Your task to perform on an android device: toggle improve location accuracy Image 0: 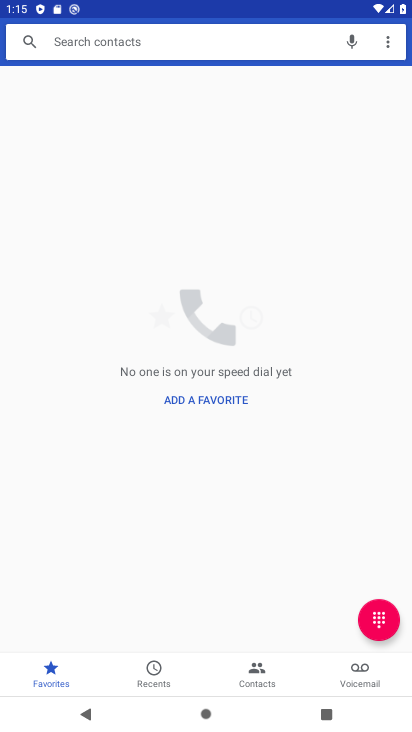
Step 0: drag from (322, 609) to (312, 205)
Your task to perform on an android device: toggle improve location accuracy Image 1: 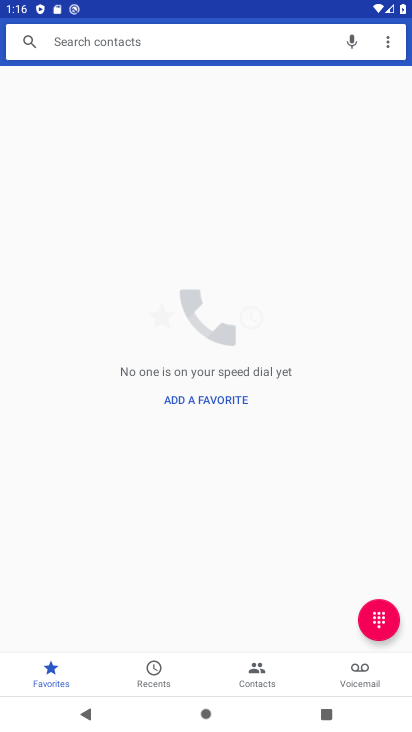
Step 1: press home button
Your task to perform on an android device: toggle improve location accuracy Image 2: 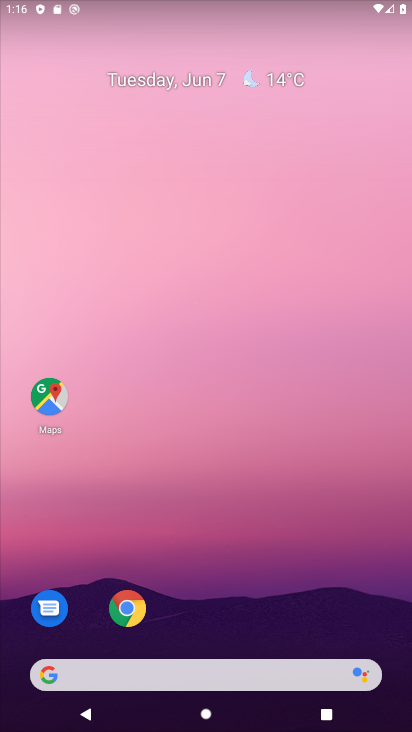
Step 2: drag from (350, 595) to (299, 232)
Your task to perform on an android device: toggle improve location accuracy Image 3: 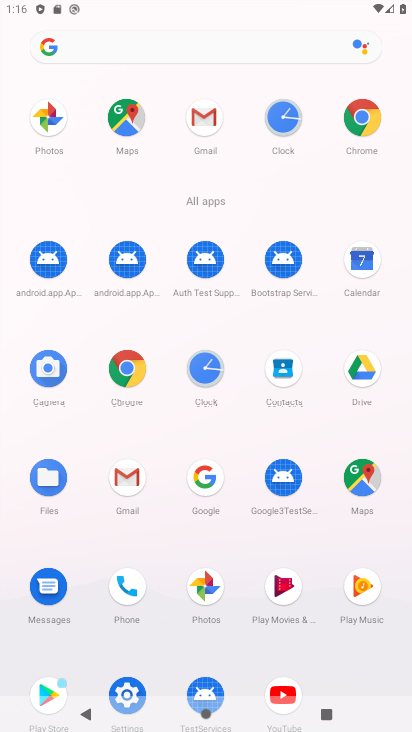
Step 3: click (129, 682)
Your task to perform on an android device: toggle improve location accuracy Image 4: 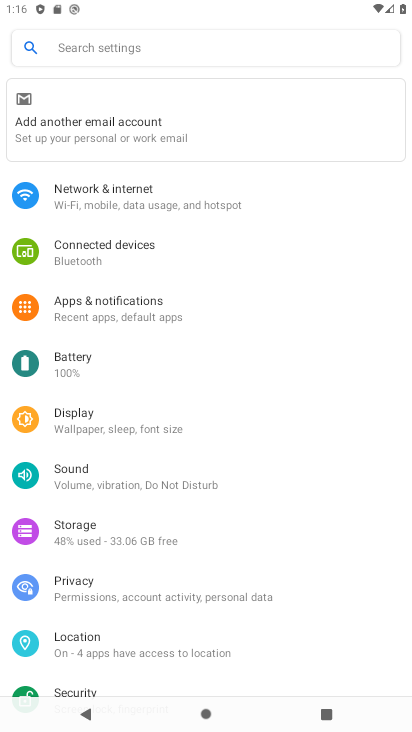
Step 4: click (137, 632)
Your task to perform on an android device: toggle improve location accuracy Image 5: 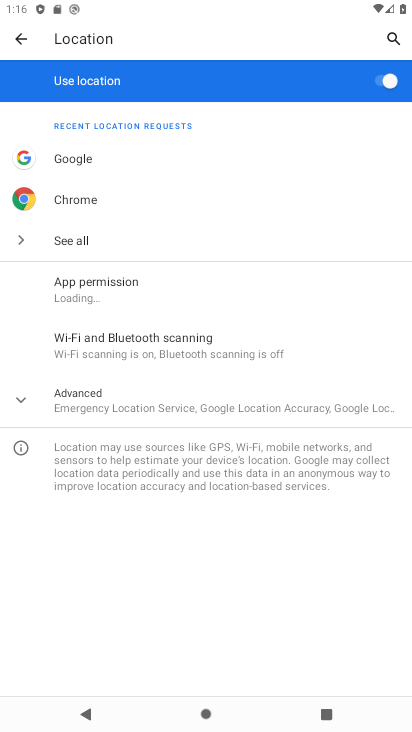
Step 5: click (194, 412)
Your task to perform on an android device: toggle improve location accuracy Image 6: 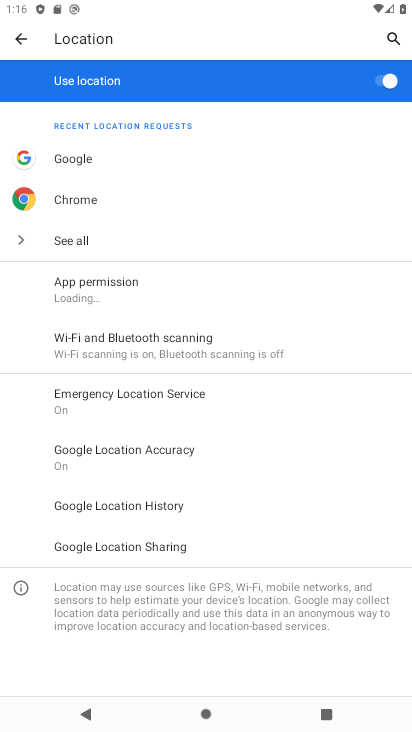
Step 6: click (152, 453)
Your task to perform on an android device: toggle improve location accuracy Image 7: 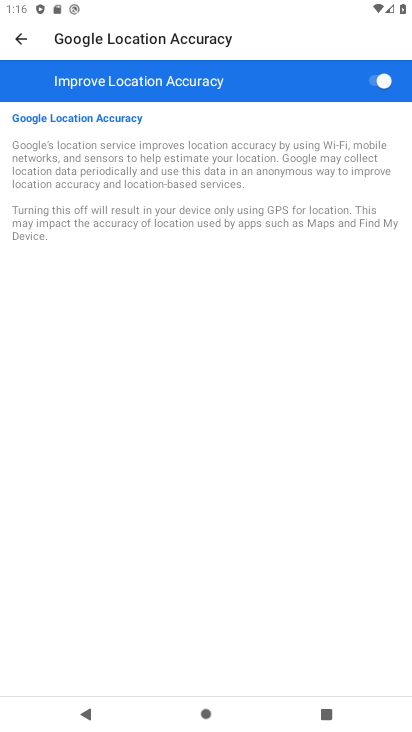
Step 7: click (376, 91)
Your task to perform on an android device: toggle improve location accuracy Image 8: 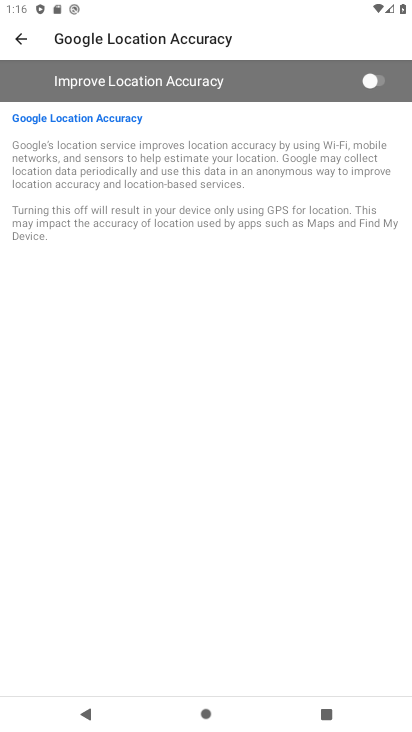
Step 8: task complete